Your task to perform on an android device: Turn on the flashlight Image 0: 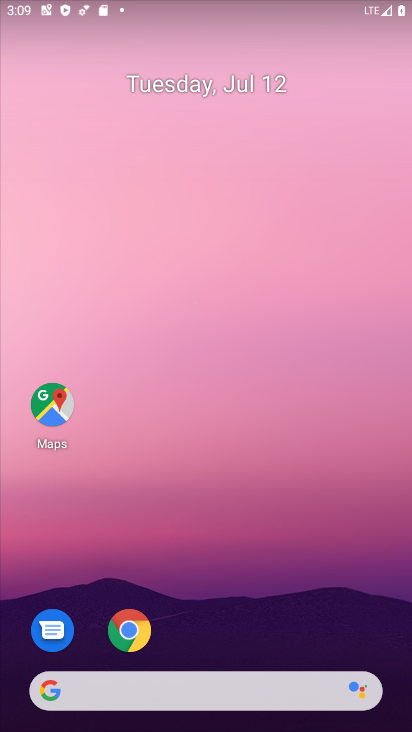
Step 0: drag from (260, 6) to (274, 646)
Your task to perform on an android device: Turn on the flashlight Image 1: 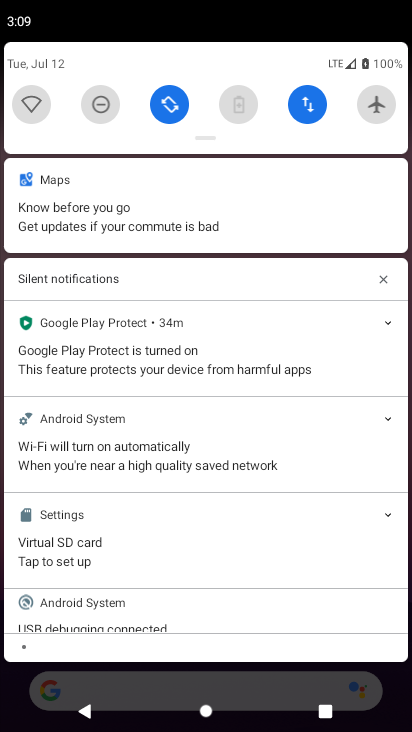
Step 1: task complete